Your task to perform on an android device: turn on location history Image 0: 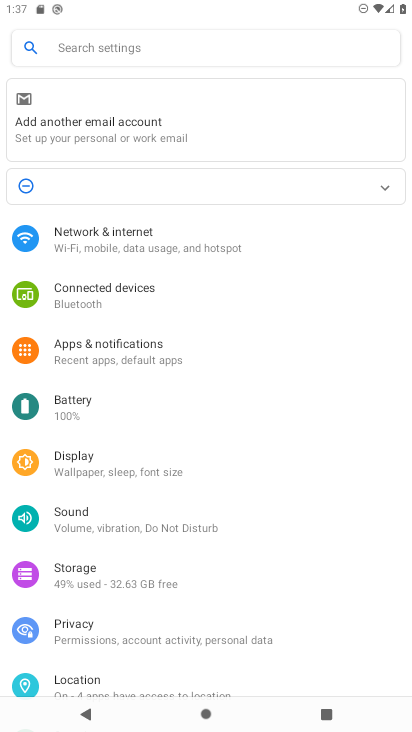
Step 0: drag from (195, 678) to (189, 437)
Your task to perform on an android device: turn on location history Image 1: 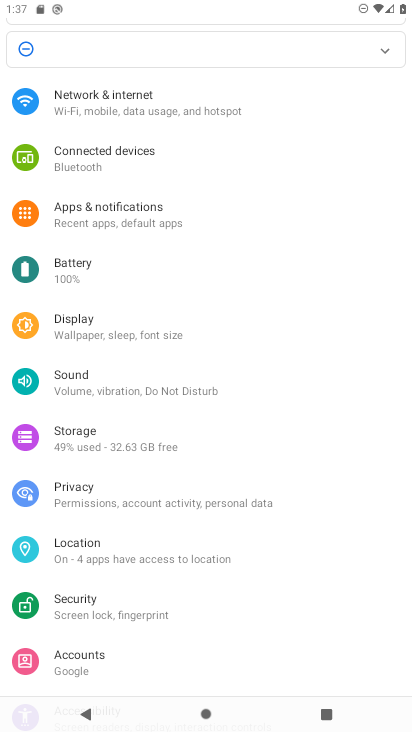
Step 1: click (83, 553)
Your task to perform on an android device: turn on location history Image 2: 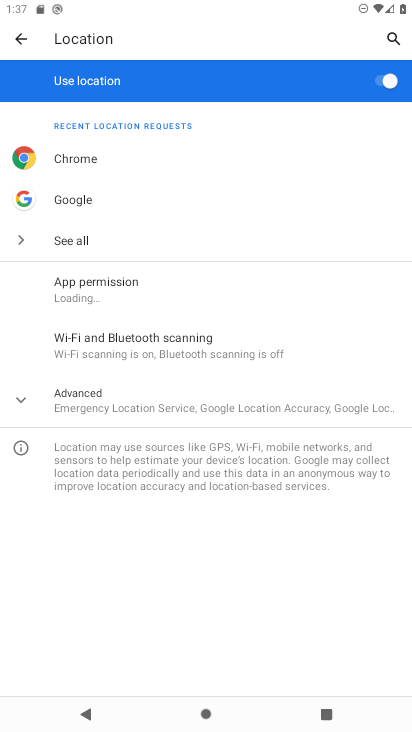
Step 2: click (24, 398)
Your task to perform on an android device: turn on location history Image 3: 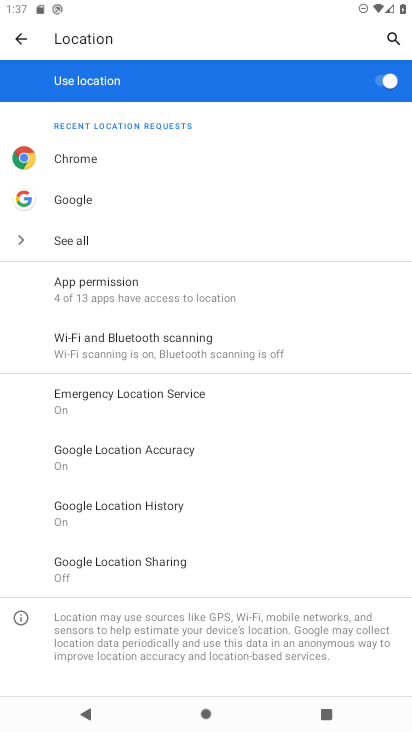
Step 3: click (106, 503)
Your task to perform on an android device: turn on location history Image 4: 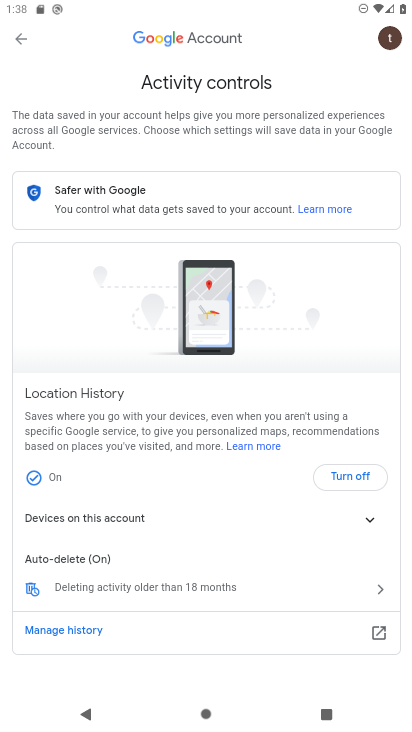
Step 4: task complete